Your task to perform on an android device: Search for vegetarian restaurants on Maps Image 0: 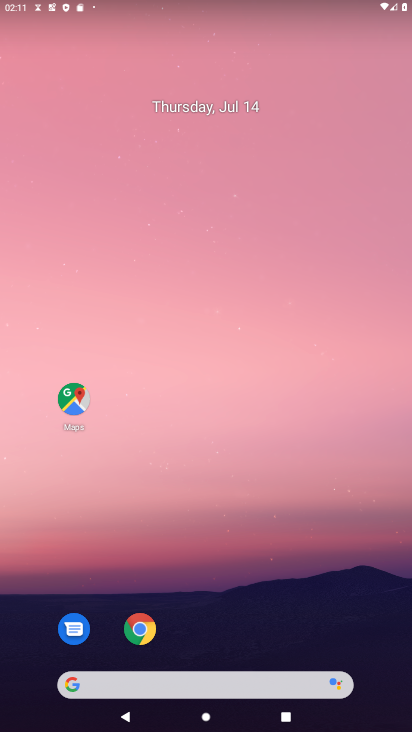
Step 0: click (82, 400)
Your task to perform on an android device: Search for vegetarian restaurants on Maps Image 1: 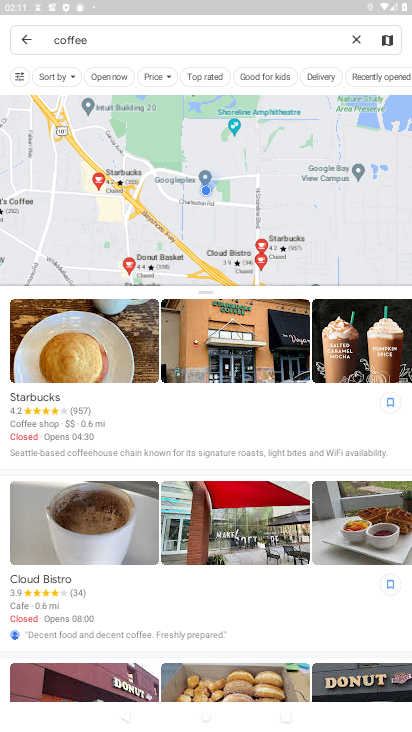
Step 1: click (25, 36)
Your task to perform on an android device: Search for vegetarian restaurants on Maps Image 2: 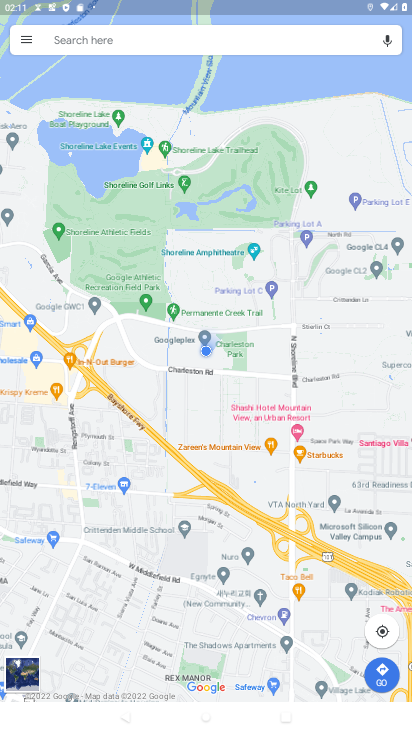
Step 2: click (282, 37)
Your task to perform on an android device: Search for vegetarian restaurants on Maps Image 3: 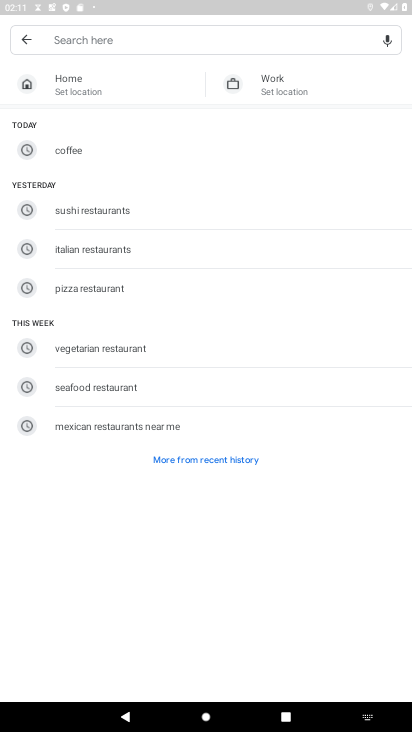
Step 3: type "vegetarian restaurants"
Your task to perform on an android device: Search for vegetarian restaurants on Maps Image 4: 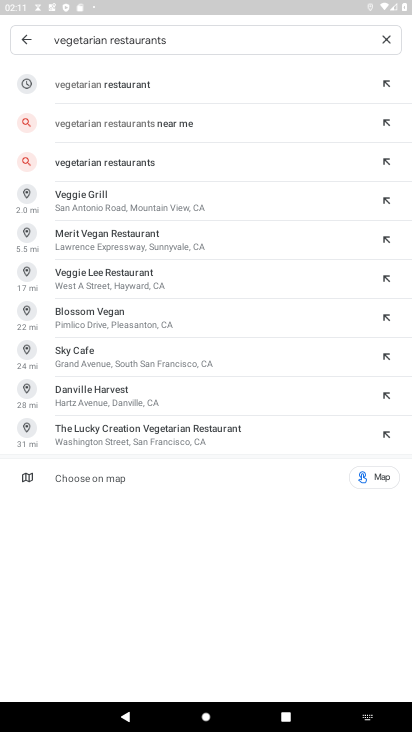
Step 4: click (132, 89)
Your task to perform on an android device: Search for vegetarian restaurants on Maps Image 5: 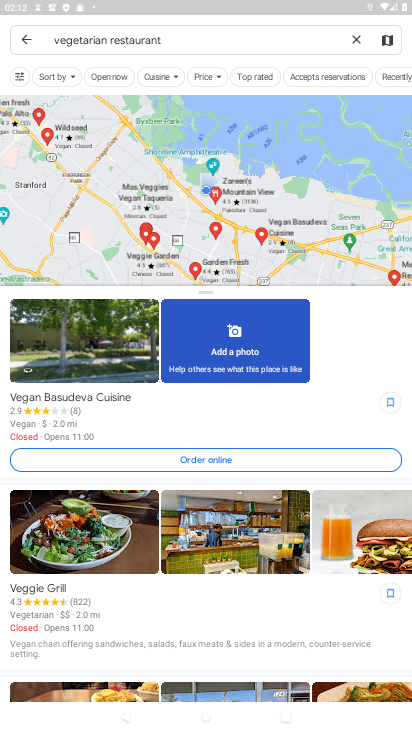
Step 5: task complete